Your task to perform on an android device: Open Google Maps and go to "Timeline" Image 0: 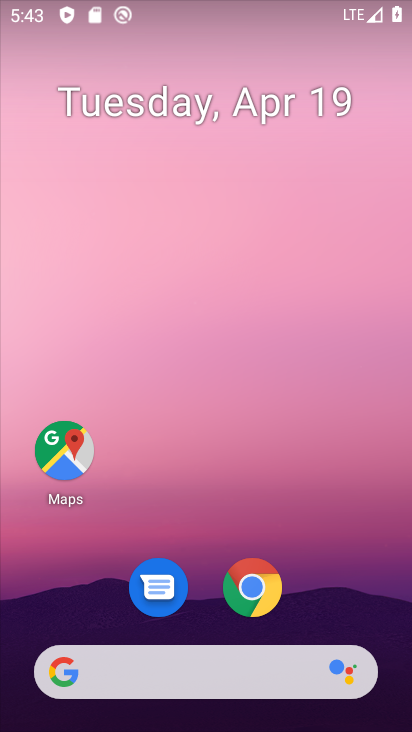
Step 0: click (73, 458)
Your task to perform on an android device: Open Google Maps and go to "Timeline" Image 1: 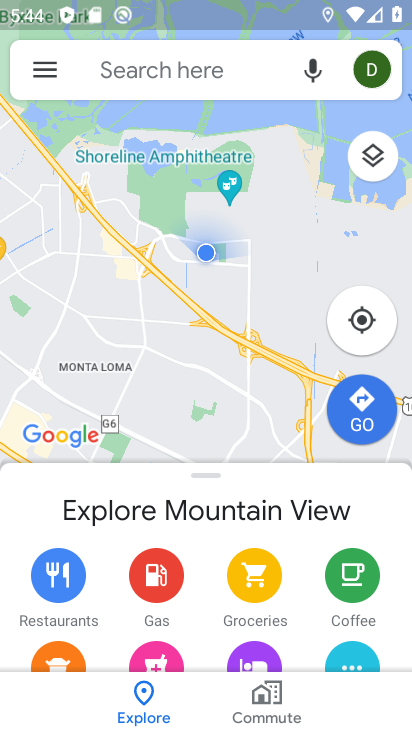
Step 1: click (51, 84)
Your task to perform on an android device: Open Google Maps and go to "Timeline" Image 2: 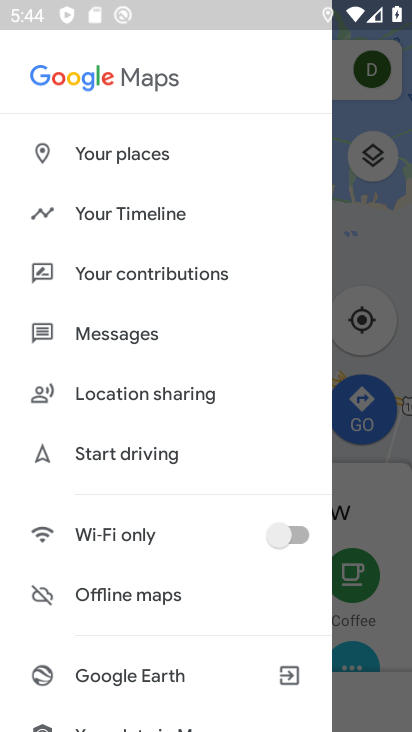
Step 2: click (131, 209)
Your task to perform on an android device: Open Google Maps and go to "Timeline" Image 3: 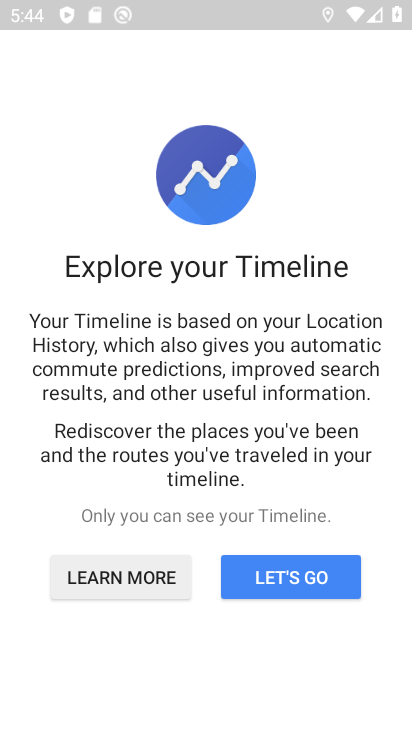
Step 3: task complete